Your task to perform on an android device: add a contact in the contacts app Image 0: 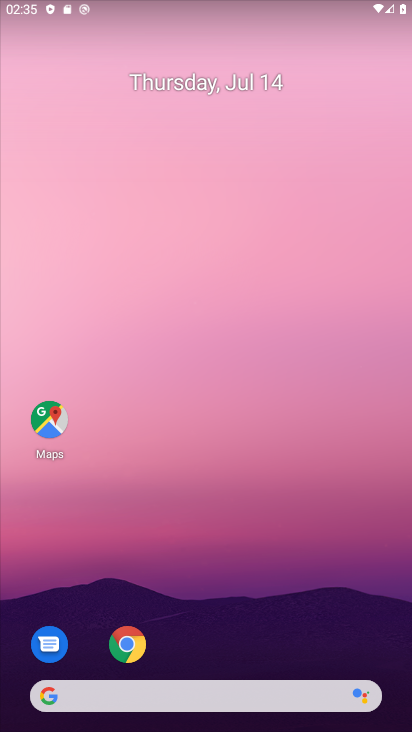
Step 0: drag from (231, 657) to (171, 98)
Your task to perform on an android device: add a contact in the contacts app Image 1: 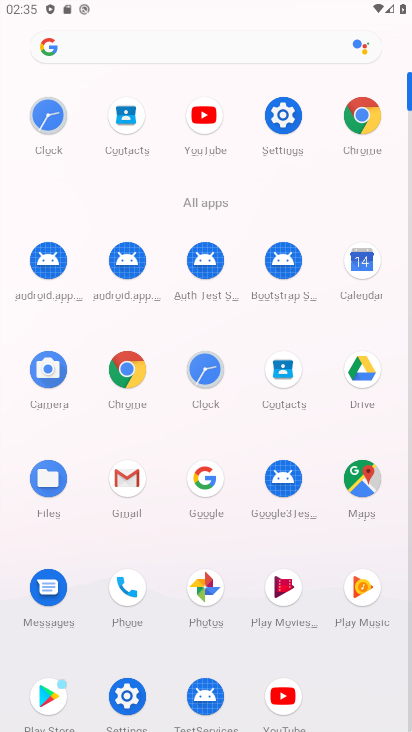
Step 1: click (131, 114)
Your task to perform on an android device: add a contact in the contacts app Image 2: 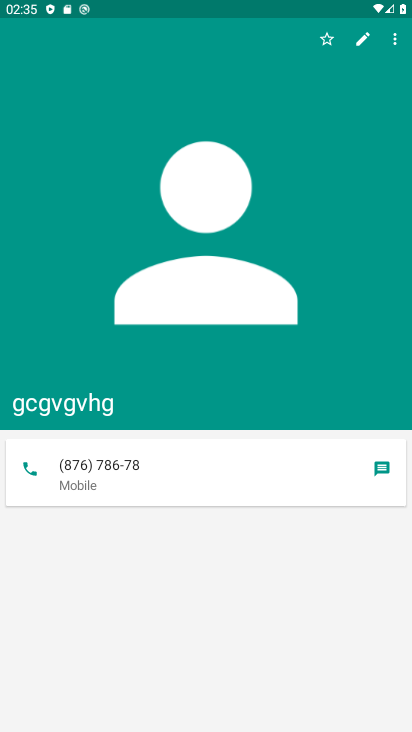
Step 2: press back button
Your task to perform on an android device: add a contact in the contacts app Image 3: 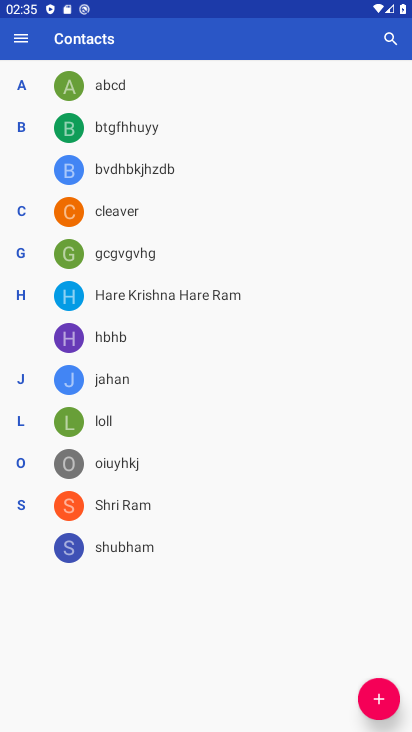
Step 3: click (379, 697)
Your task to perform on an android device: add a contact in the contacts app Image 4: 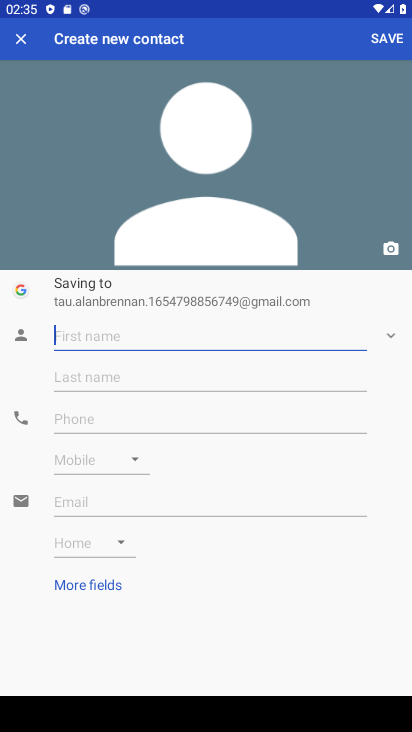
Step 4: type "bjhbhj"
Your task to perform on an android device: add a contact in the contacts app Image 5: 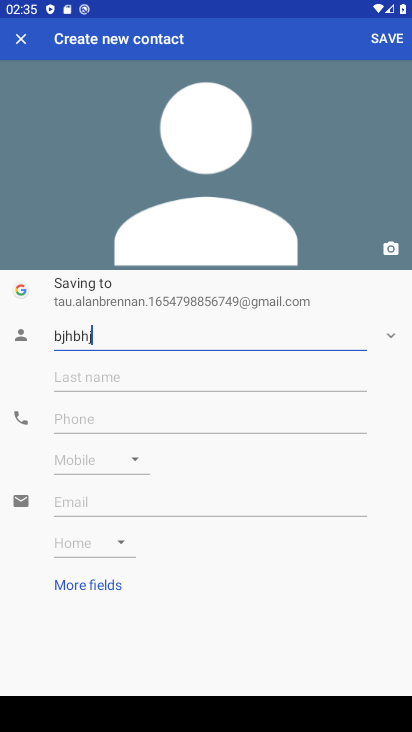
Step 5: click (198, 419)
Your task to perform on an android device: add a contact in the contacts app Image 6: 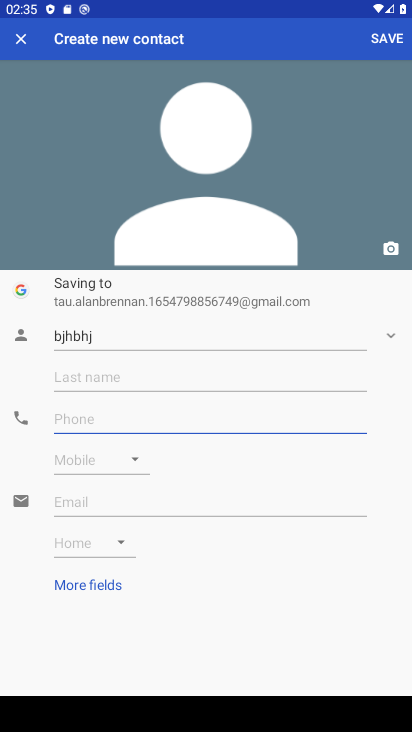
Step 6: type "767867887"
Your task to perform on an android device: add a contact in the contacts app Image 7: 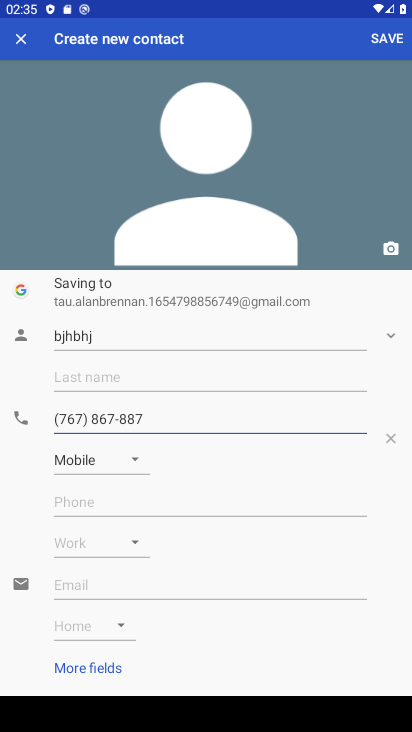
Step 7: click (385, 32)
Your task to perform on an android device: add a contact in the contacts app Image 8: 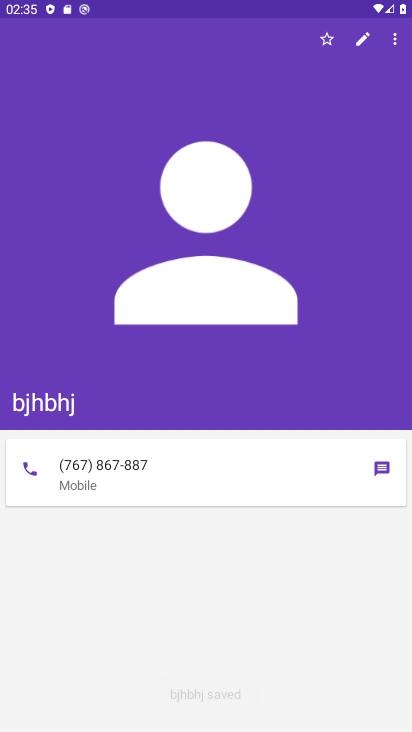
Step 8: task complete